Your task to perform on an android device: choose inbox layout in the gmail app Image 0: 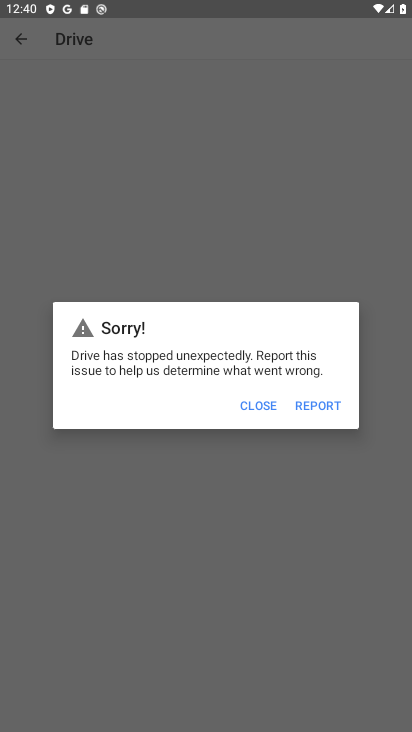
Step 0: press back button
Your task to perform on an android device: choose inbox layout in the gmail app Image 1: 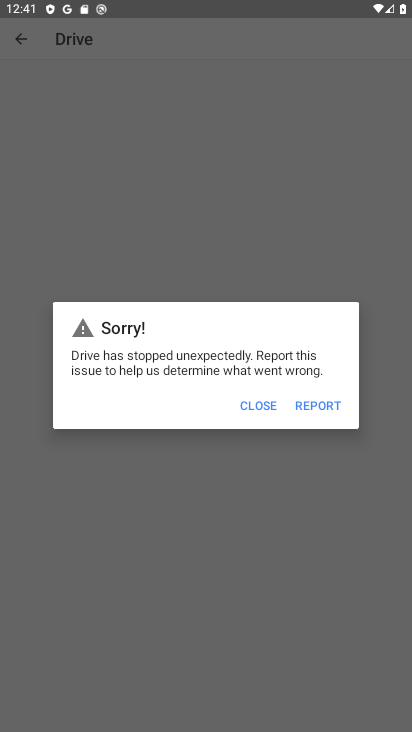
Step 1: press home button
Your task to perform on an android device: choose inbox layout in the gmail app Image 2: 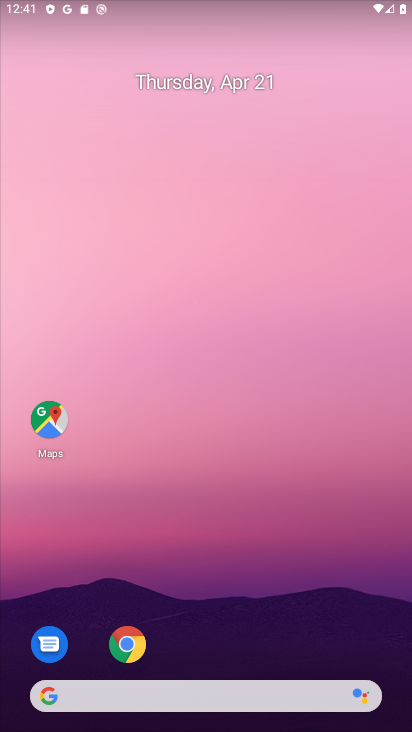
Step 2: drag from (260, 615) to (212, 156)
Your task to perform on an android device: choose inbox layout in the gmail app Image 3: 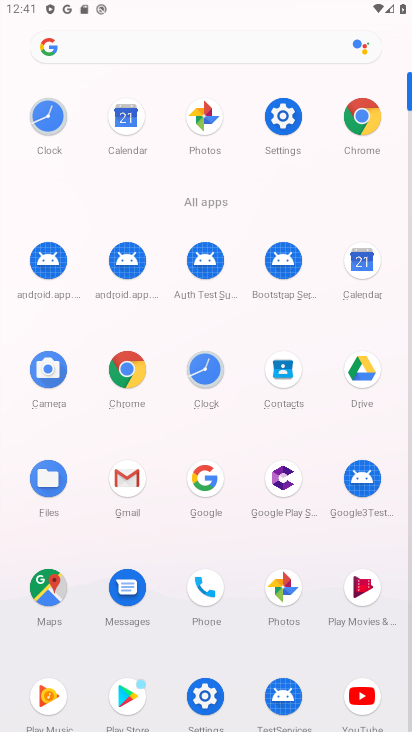
Step 3: click (129, 488)
Your task to perform on an android device: choose inbox layout in the gmail app Image 4: 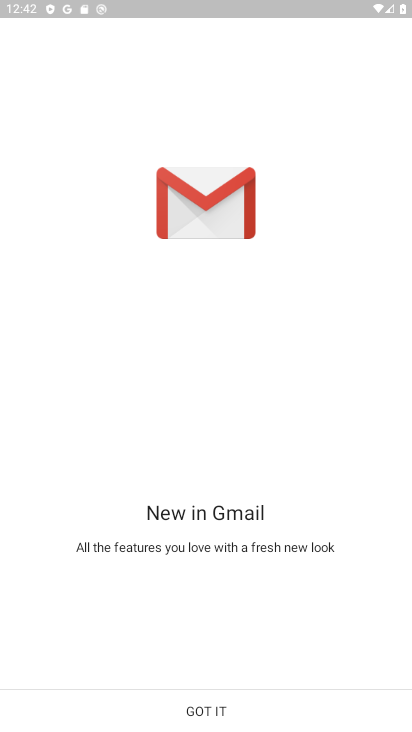
Step 4: click (201, 721)
Your task to perform on an android device: choose inbox layout in the gmail app Image 5: 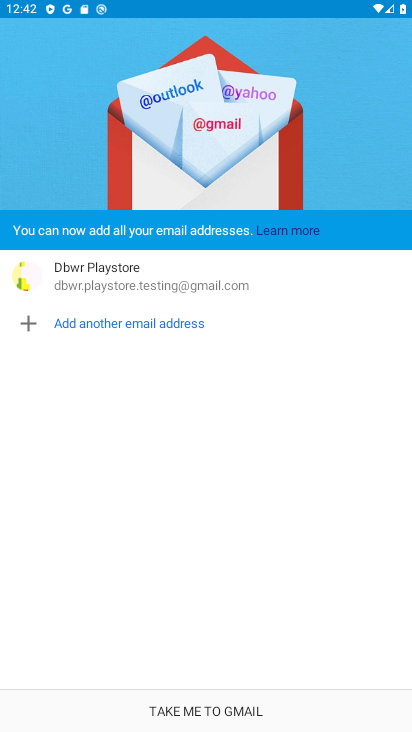
Step 5: click (201, 716)
Your task to perform on an android device: choose inbox layout in the gmail app Image 6: 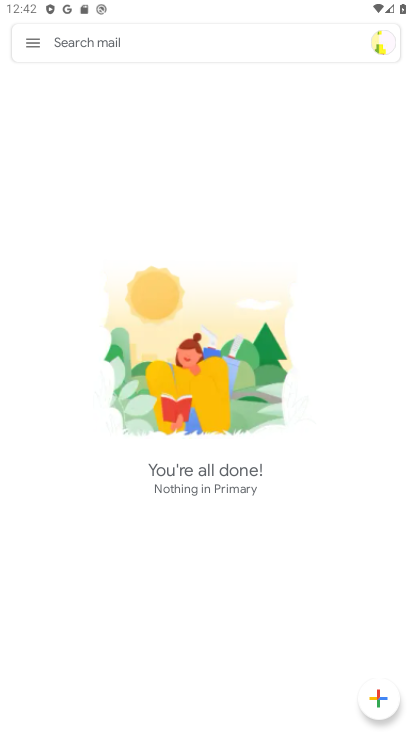
Step 6: click (32, 57)
Your task to perform on an android device: choose inbox layout in the gmail app Image 7: 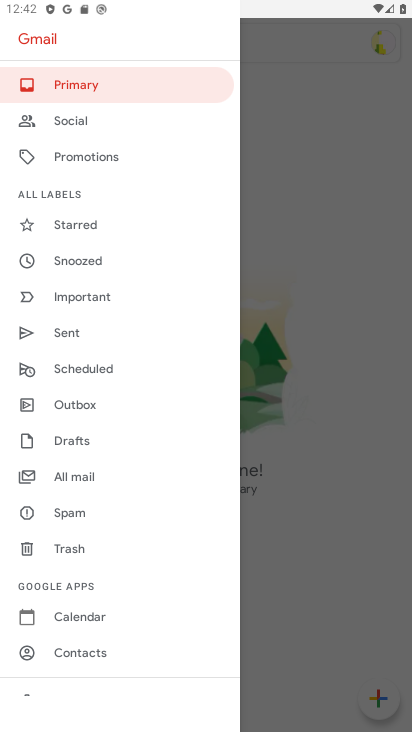
Step 7: drag from (138, 631) to (137, 224)
Your task to perform on an android device: choose inbox layout in the gmail app Image 8: 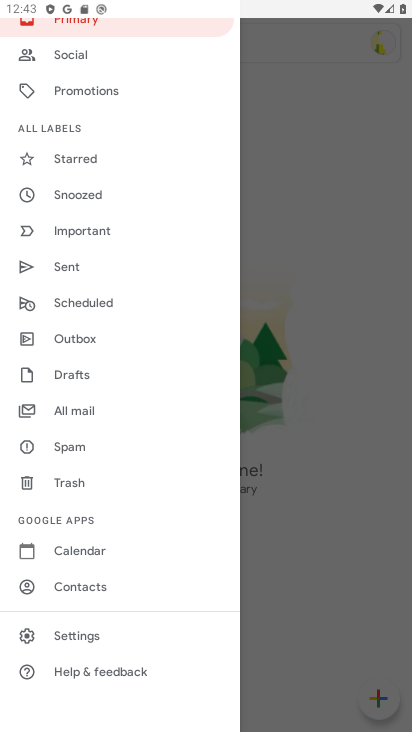
Step 8: click (110, 638)
Your task to perform on an android device: choose inbox layout in the gmail app Image 9: 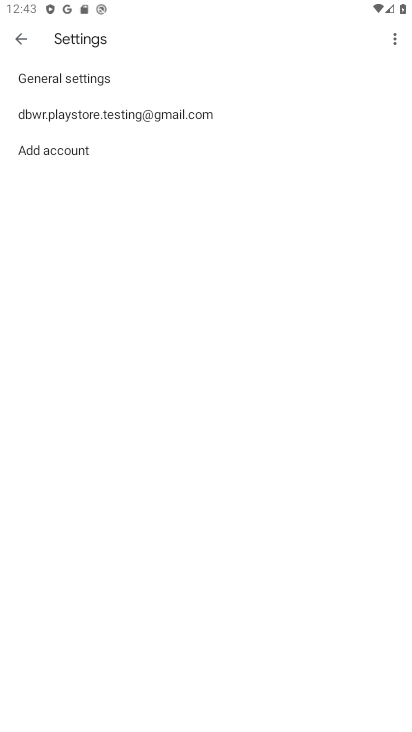
Step 9: click (304, 130)
Your task to perform on an android device: choose inbox layout in the gmail app Image 10: 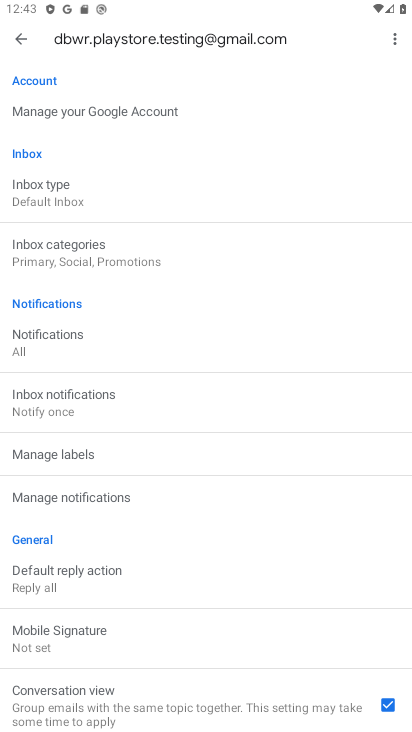
Step 10: drag from (231, 611) to (162, 687)
Your task to perform on an android device: choose inbox layout in the gmail app Image 11: 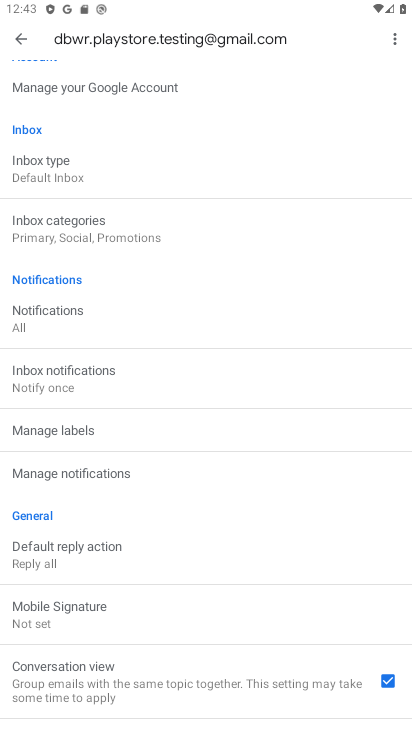
Step 11: click (160, 184)
Your task to perform on an android device: choose inbox layout in the gmail app Image 12: 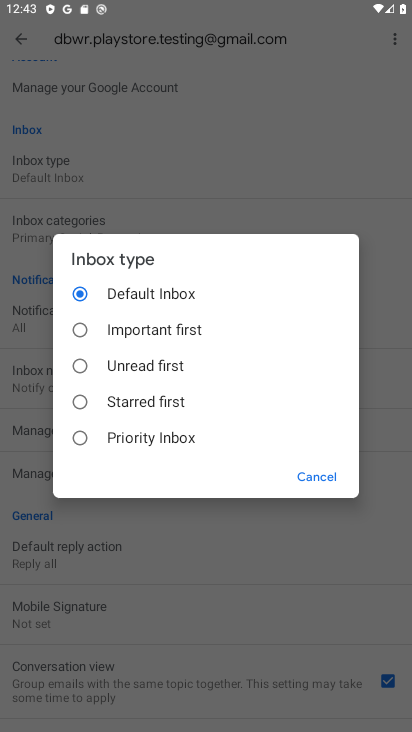
Step 12: click (169, 364)
Your task to perform on an android device: choose inbox layout in the gmail app Image 13: 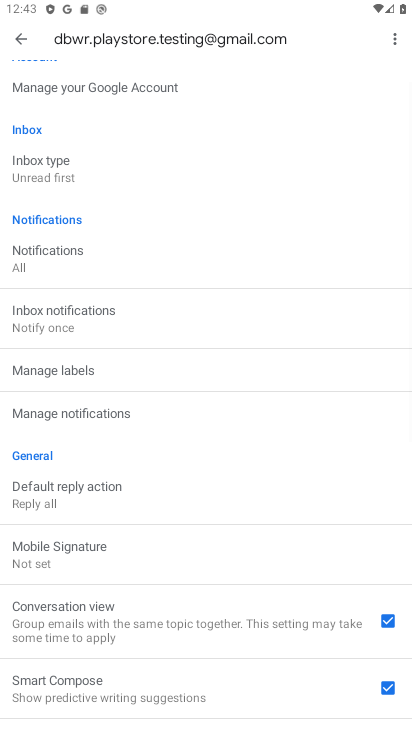
Step 13: task complete